Your task to perform on an android device: turn off location history Image 0: 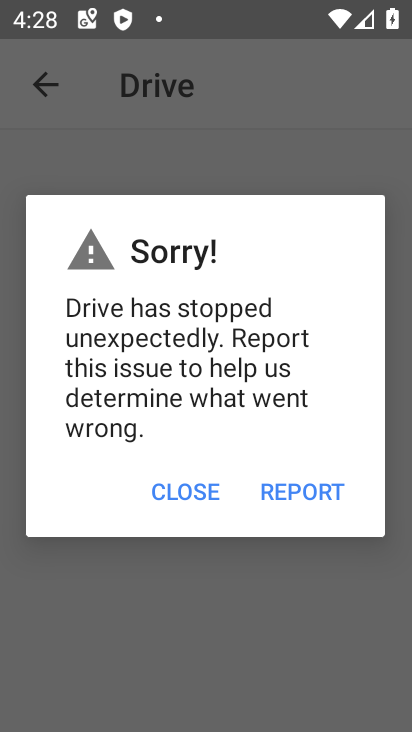
Step 0: press home button
Your task to perform on an android device: turn off location history Image 1: 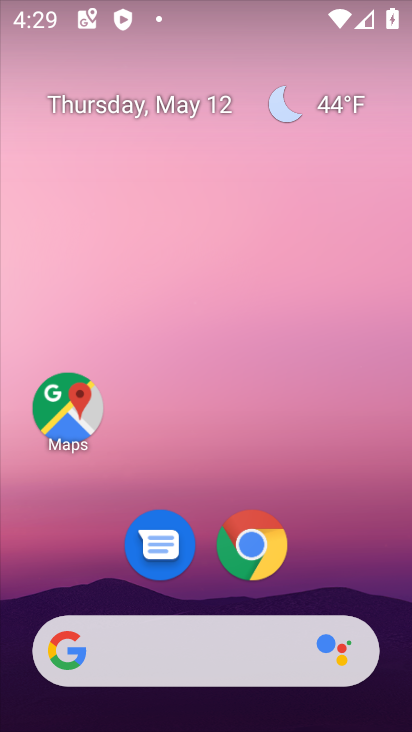
Step 1: drag from (325, 504) to (303, 98)
Your task to perform on an android device: turn off location history Image 2: 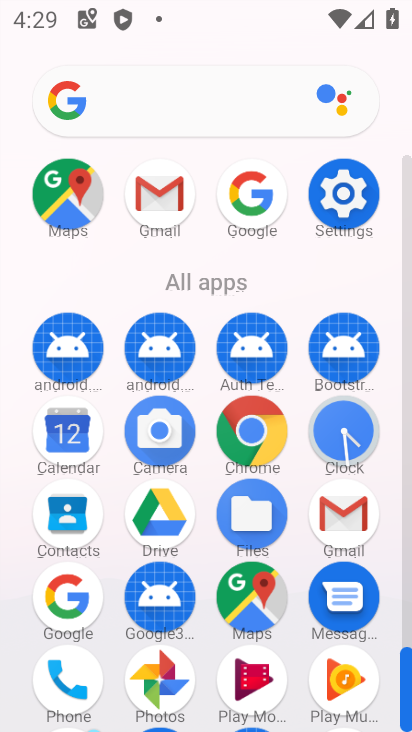
Step 2: click (356, 196)
Your task to perform on an android device: turn off location history Image 3: 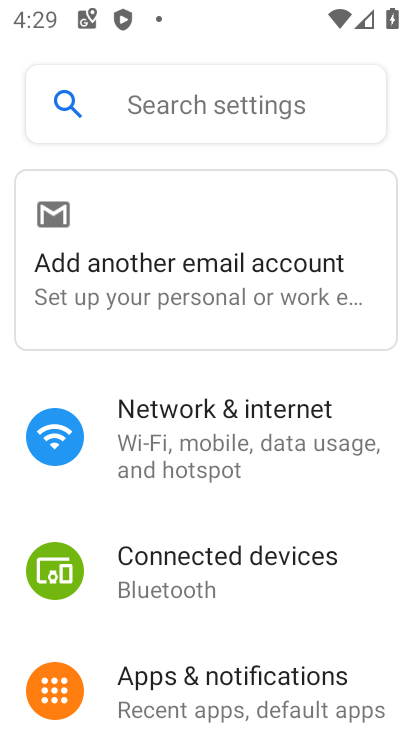
Step 3: drag from (249, 568) to (274, 123)
Your task to perform on an android device: turn off location history Image 4: 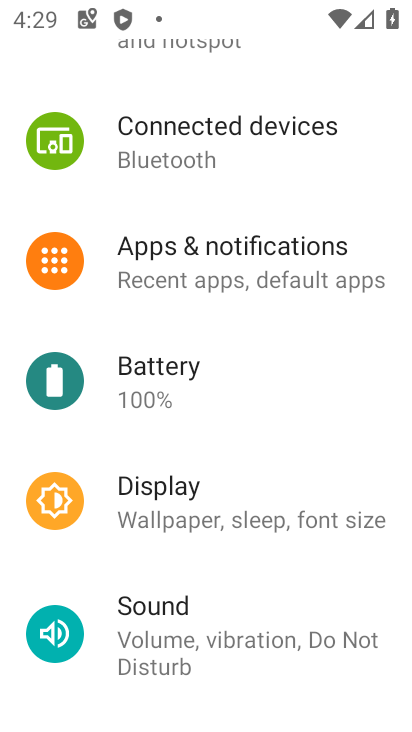
Step 4: drag from (189, 540) to (241, 212)
Your task to perform on an android device: turn off location history Image 5: 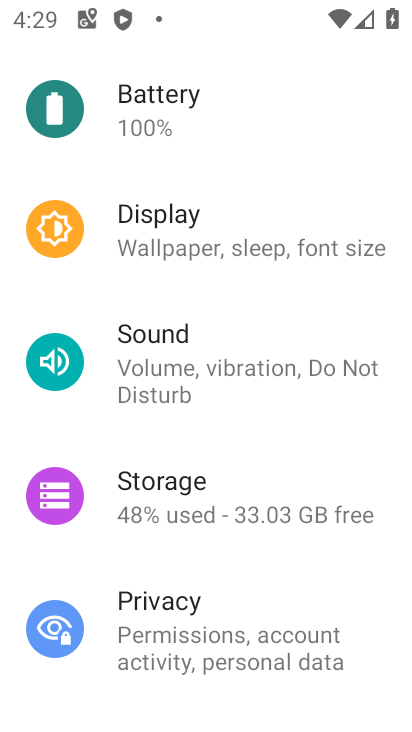
Step 5: drag from (184, 535) to (225, 192)
Your task to perform on an android device: turn off location history Image 6: 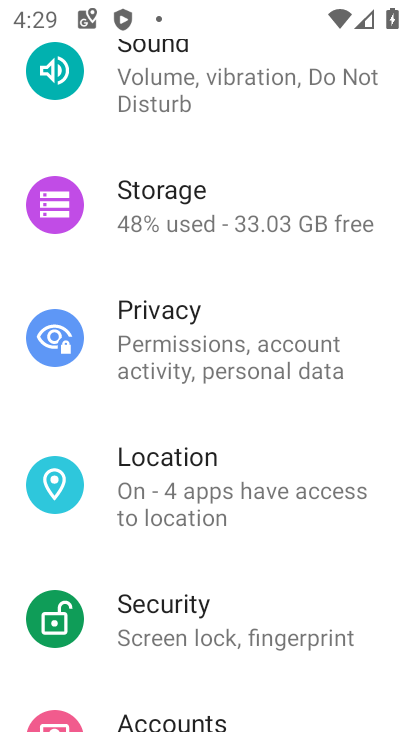
Step 6: click (224, 499)
Your task to perform on an android device: turn off location history Image 7: 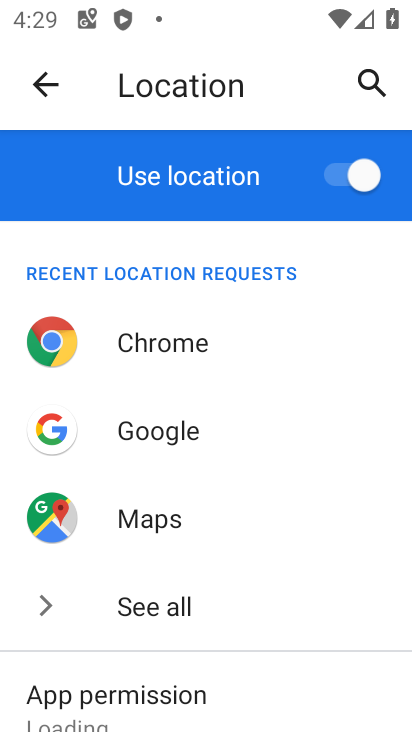
Step 7: drag from (239, 479) to (242, 126)
Your task to perform on an android device: turn off location history Image 8: 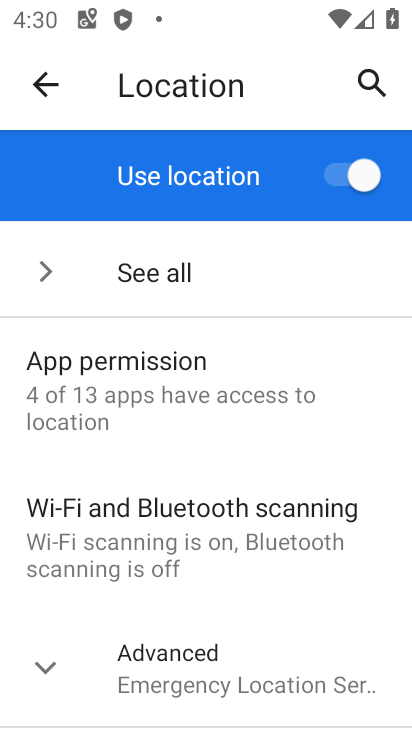
Step 8: drag from (170, 513) to (220, 231)
Your task to perform on an android device: turn off location history Image 9: 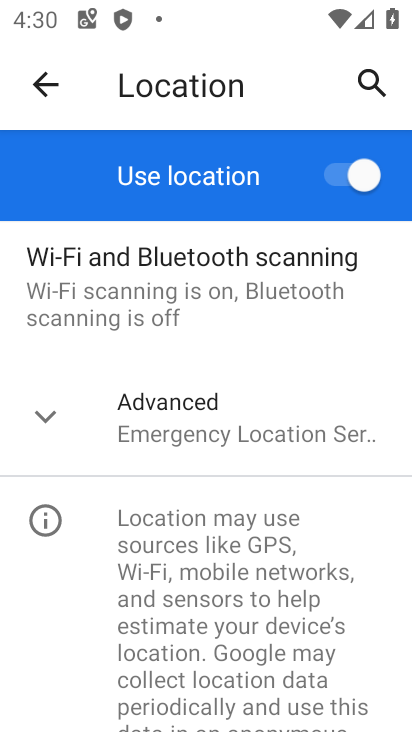
Step 9: click (179, 436)
Your task to perform on an android device: turn off location history Image 10: 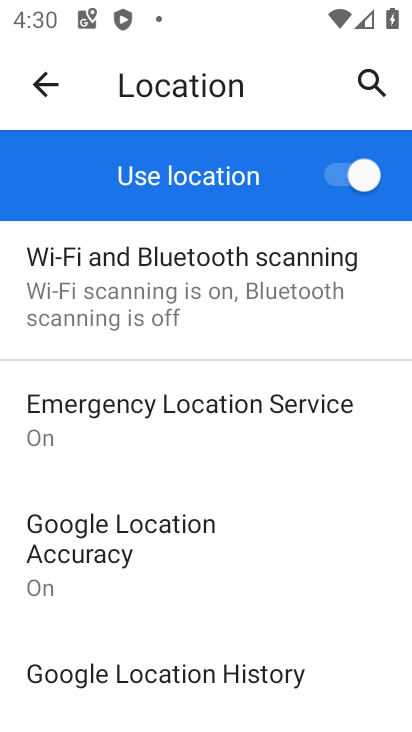
Step 10: drag from (159, 574) to (214, 359)
Your task to perform on an android device: turn off location history Image 11: 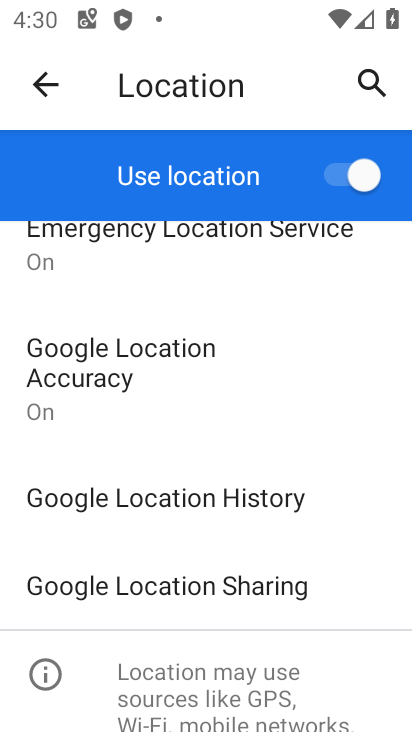
Step 11: click (178, 497)
Your task to perform on an android device: turn off location history Image 12: 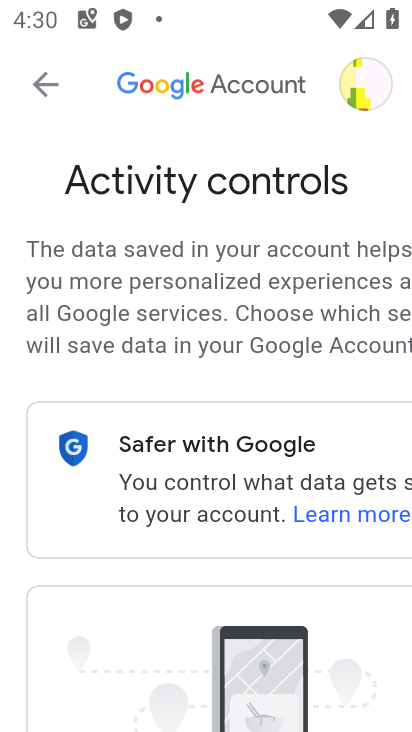
Step 12: task complete